Your task to perform on an android device: Go to Yahoo.com Image 0: 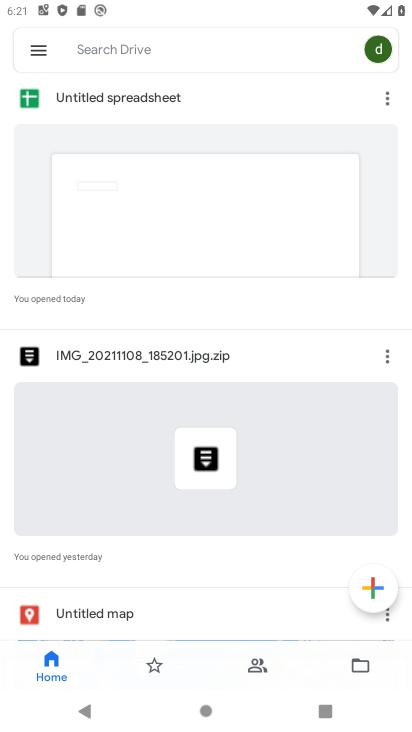
Step 0: press home button
Your task to perform on an android device: Go to Yahoo.com Image 1: 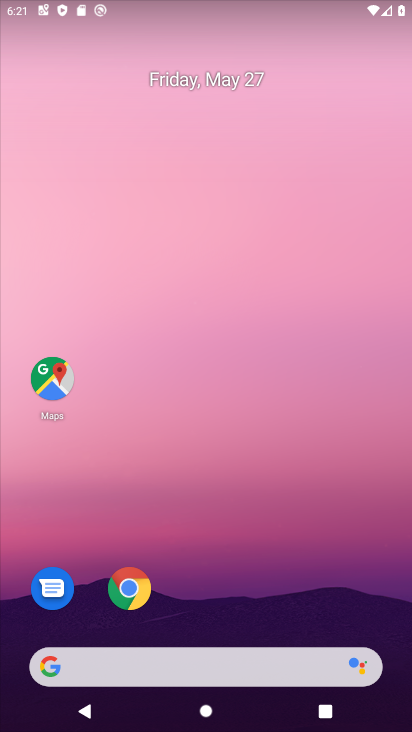
Step 1: click (129, 589)
Your task to perform on an android device: Go to Yahoo.com Image 2: 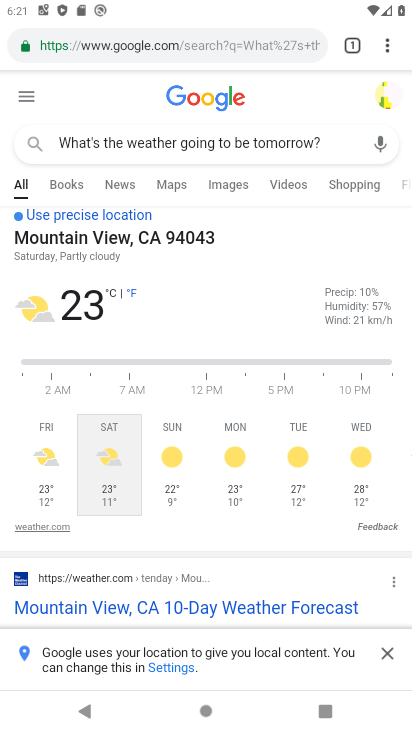
Step 2: click (251, 45)
Your task to perform on an android device: Go to Yahoo.com Image 3: 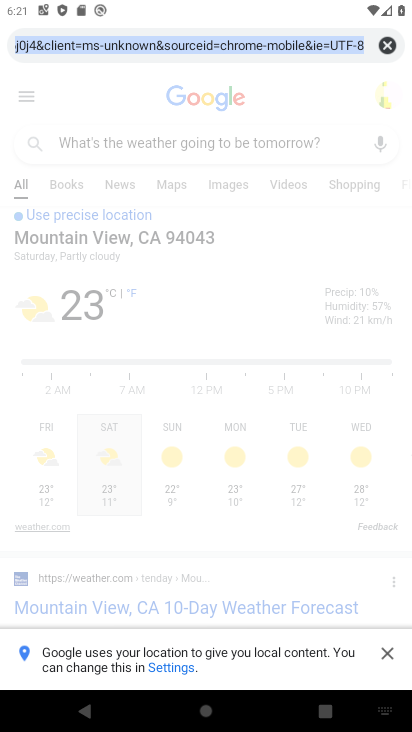
Step 3: click (388, 45)
Your task to perform on an android device: Go to Yahoo.com Image 4: 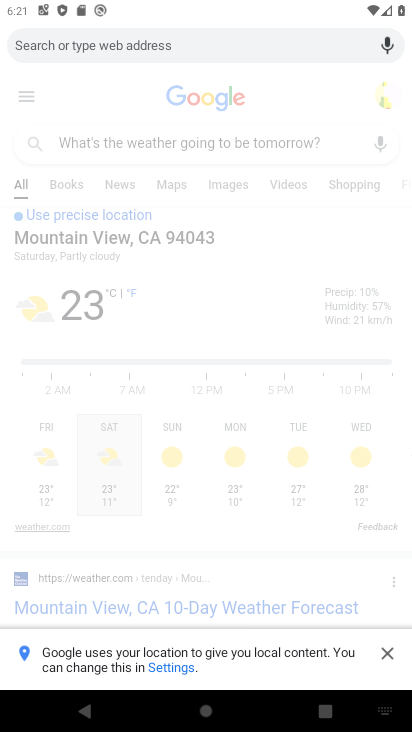
Step 4: type " Yahoo.com"
Your task to perform on an android device: Go to Yahoo.com Image 5: 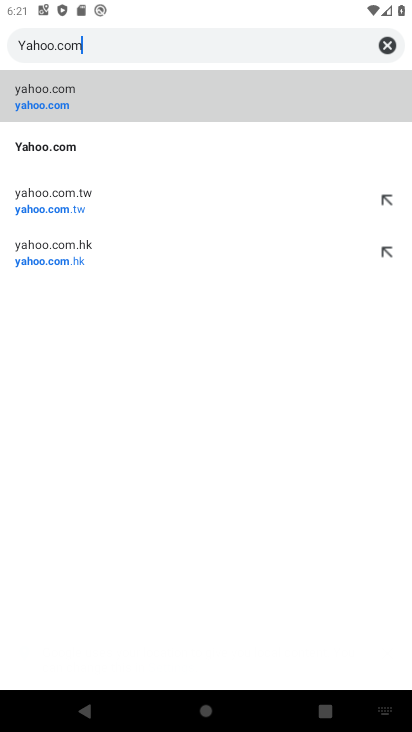
Step 5: click (39, 99)
Your task to perform on an android device: Go to Yahoo.com Image 6: 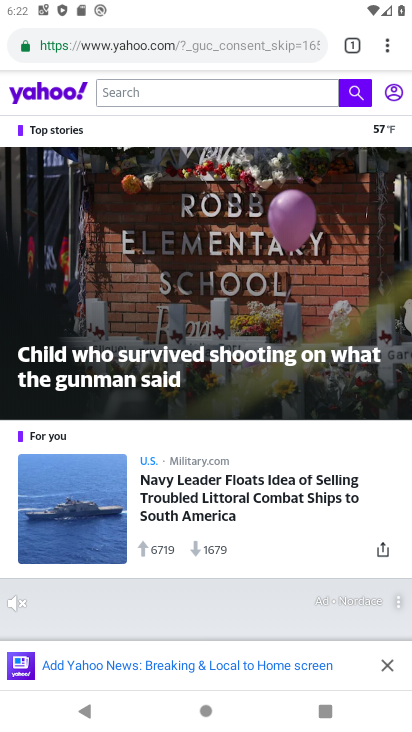
Step 6: task complete